Your task to perform on an android device: turn off location Image 0: 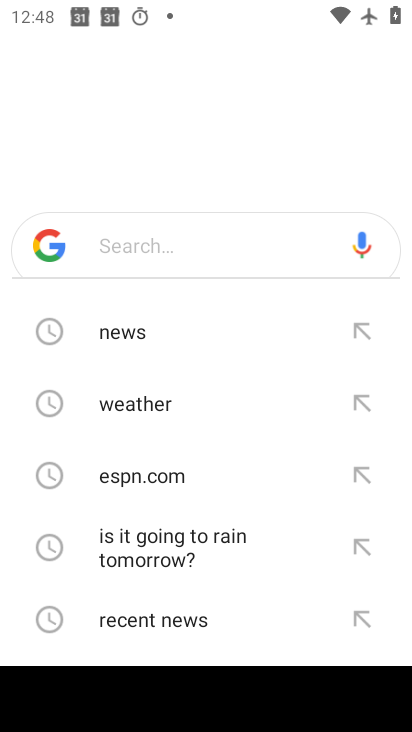
Step 0: press home button
Your task to perform on an android device: turn off location Image 1: 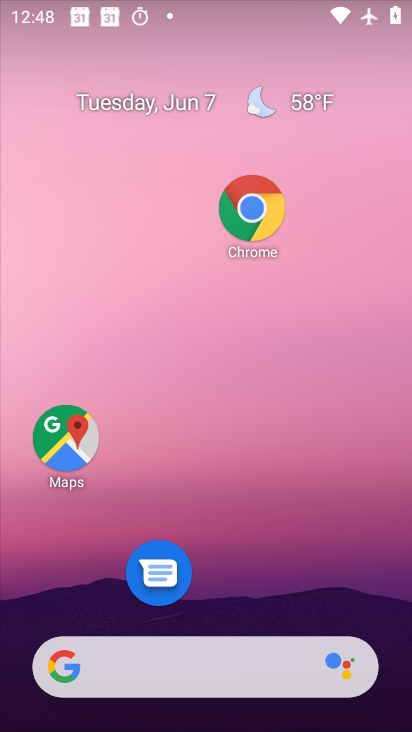
Step 1: drag from (218, 591) to (224, 178)
Your task to perform on an android device: turn off location Image 2: 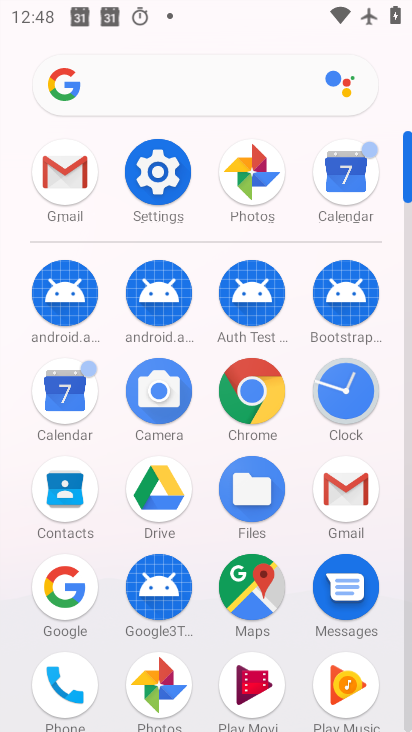
Step 2: click (168, 192)
Your task to perform on an android device: turn off location Image 3: 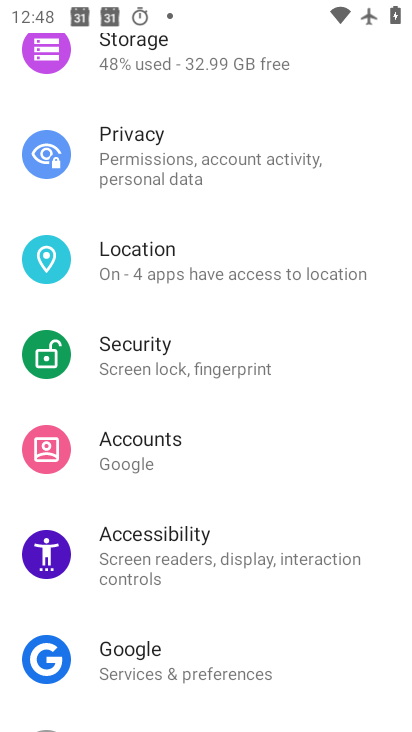
Step 3: click (171, 269)
Your task to perform on an android device: turn off location Image 4: 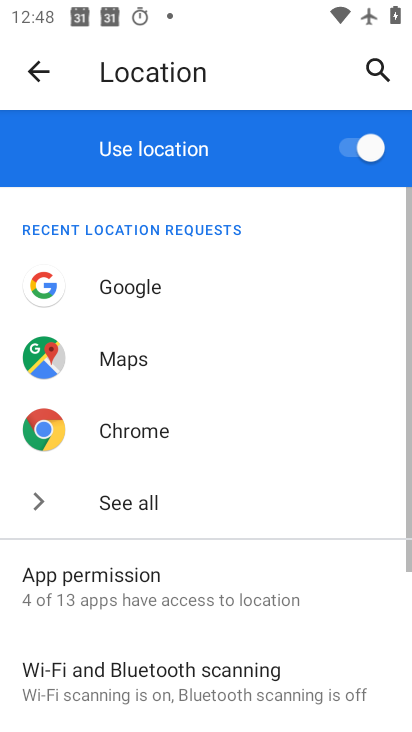
Step 4: click (353, 145)
Your task to perform on an android device: turn off location Image 5: 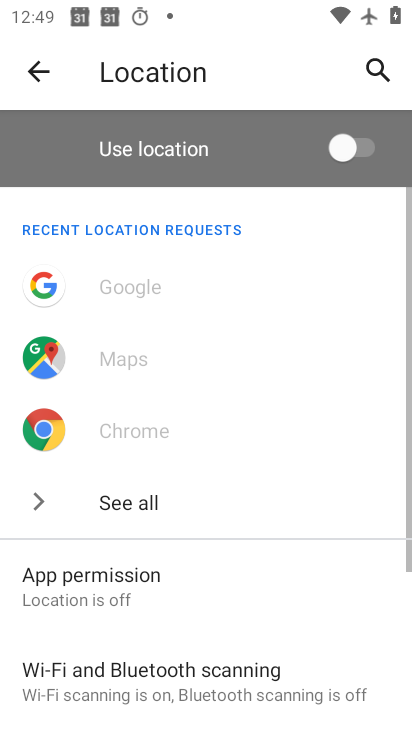
Step 5: task complete